Your task to perform on an android device: turn on wifi Image 0: 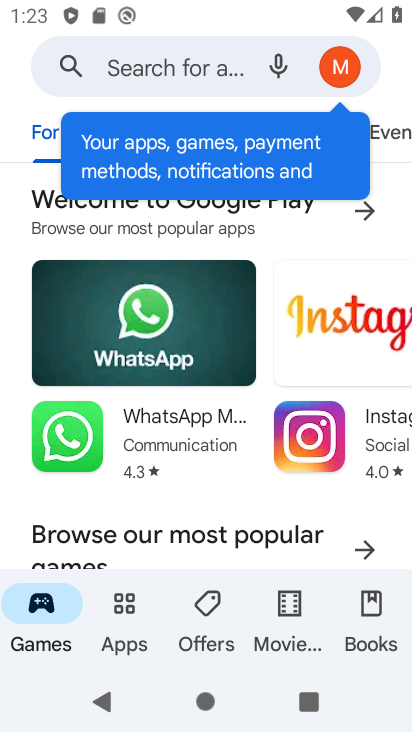
Step 0: task complete